Your task to perform on an android device: turn off data saver in the chrome app Image 0: 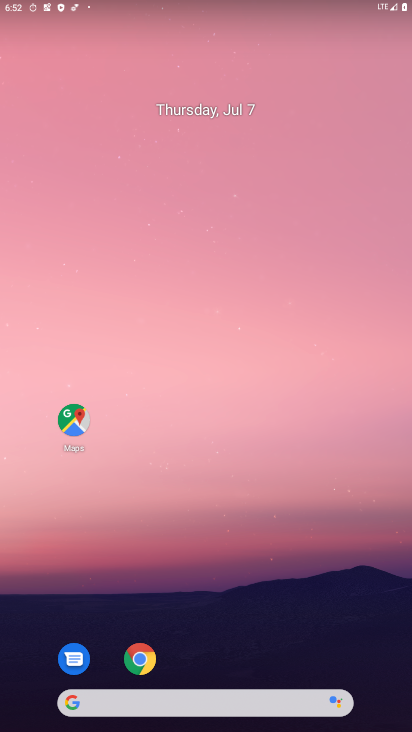
Step 0: drag from (367, 610) to (185, 1)
Your task to perform on an android device: turn off data saver in the chrome app Image 1: 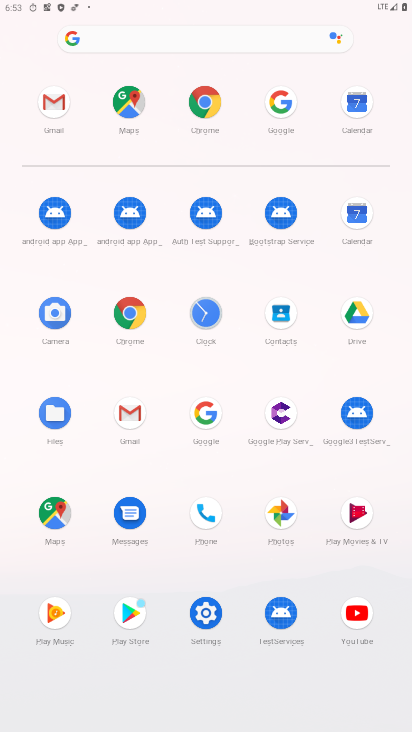
Step 1: click (203, 96)
Your task to perform on an android device: turn off data saver in the chrome app Image 2: 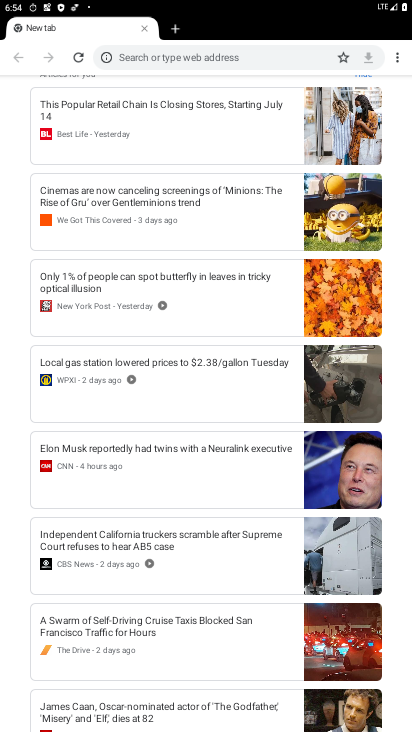
Step 2: click (392, 60)
Your task to perform on an android device: turn off data saver in the chrome app Image 3: 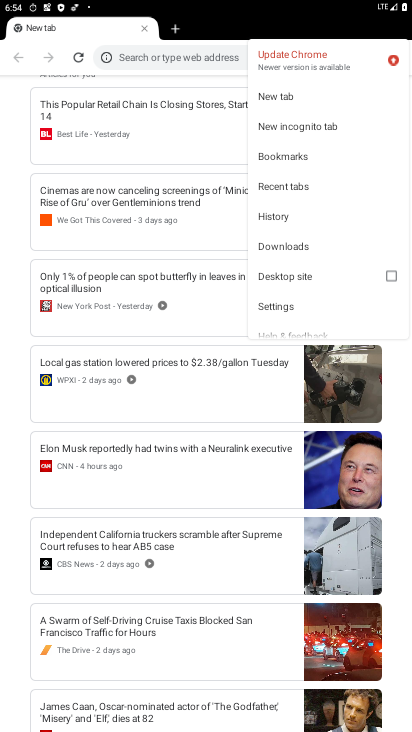
Step 3: click (292, 301)
Your task to perform on an android device: turn off data saver in the chrome app Image 4: 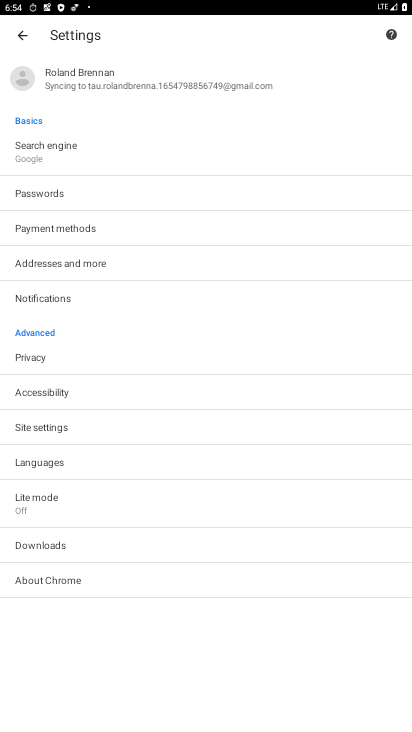
Step 4: click (37, 503)
Your task to perform on an android device: turn off data saver in the chrome app Image 5: 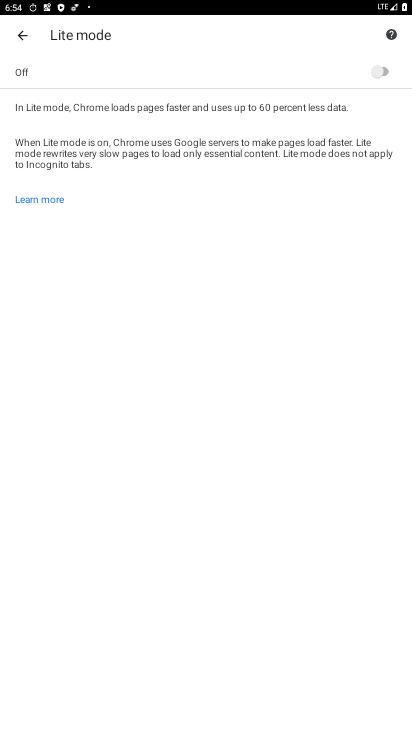
Step 5: task complete